Your task to perform on an android device: Search for a dining table on Crate & Barrel Image 0: 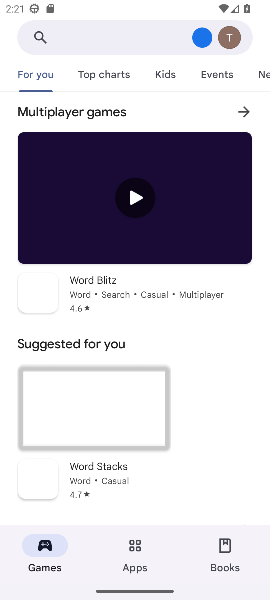
Step 0: press home button
Your task to perform on an android device: Search for a dining table on Crate & Barrel Image 1: 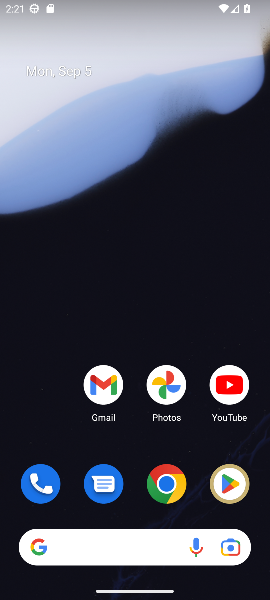
Step 1: click (163, 479)
Your task to perform on an android device: Search for a dining table on Crate & Barrel Image 2: 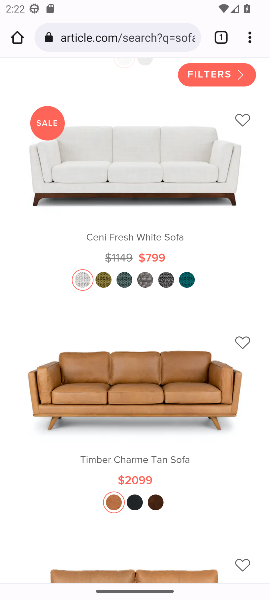
Step 2: drag from (150, 198) to (140, 511)
Your task to perform on an android device: Search for a dining table on Crate & Barrel Image 3: 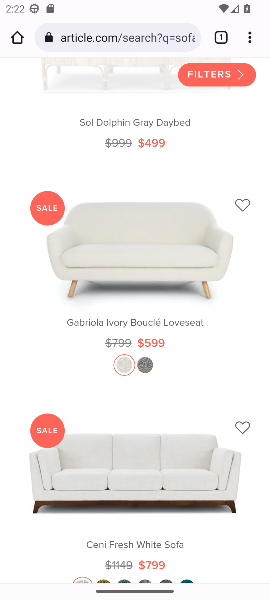
Step 3: click (118, 32)
Your task to perform on an android device: Search for a dining table on Crate & Barrel Image 4: 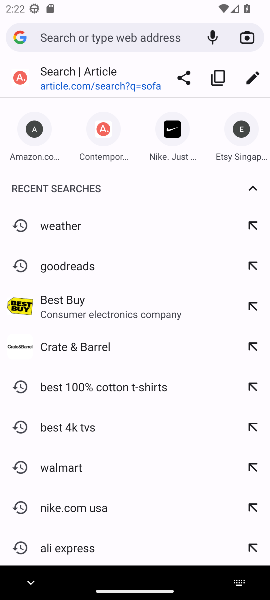
Step 4: type "Crate & Barrel"
Your task to perform on an android device: Search for a dining table on Crate & Barrel Image 5: 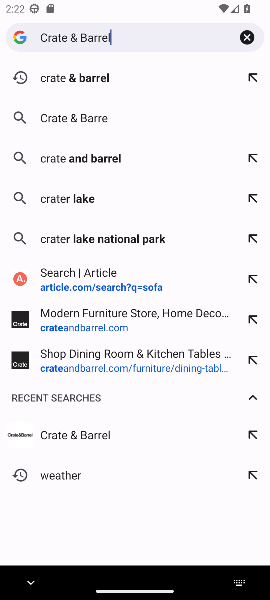
Step 5: press enter
Your task to perform on an android device: Search for a dining table on Crate & Barrel Image 6: 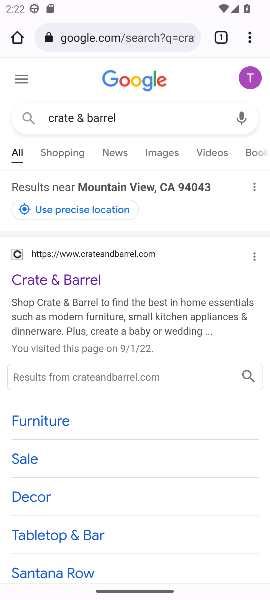
Step 6: click (64, 282)
Your task to perform on an android device: Search for a dining table on Crate & Barrel Image 7: 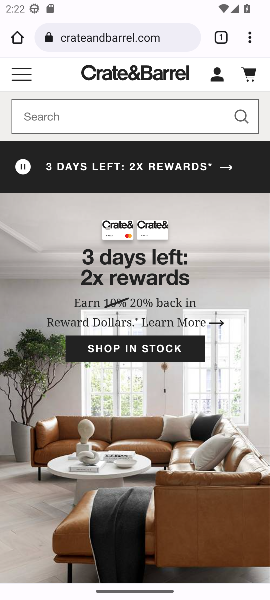
Step 7: click (105, 117)
Your task to perform on an android device: Search for a dining table on Crate & Barrel Image 8: 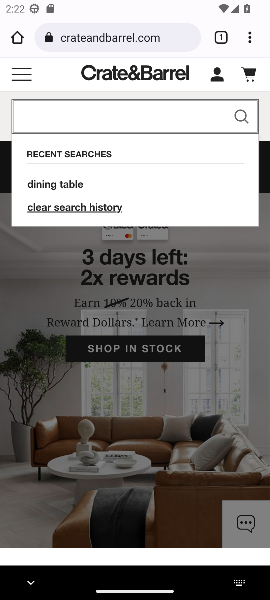
Step 8: type "dining table"
Your task to perform on an android device: Search for a dining table on Crate & Barrel Image 9: 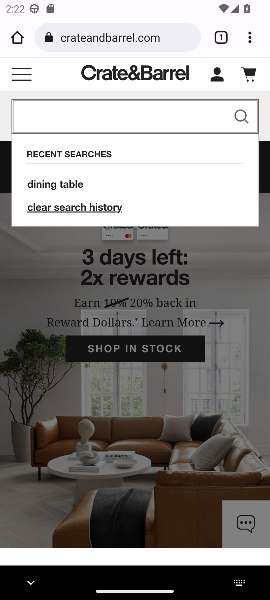
Step 9: press enter
Your task to perform on an android device: Search for a dining table on Crate & Barrel Image 10: 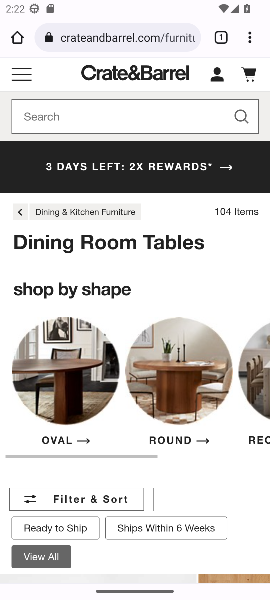
Step 10: task complete